Your task to perform on an android device: Open Android settings Image 0: 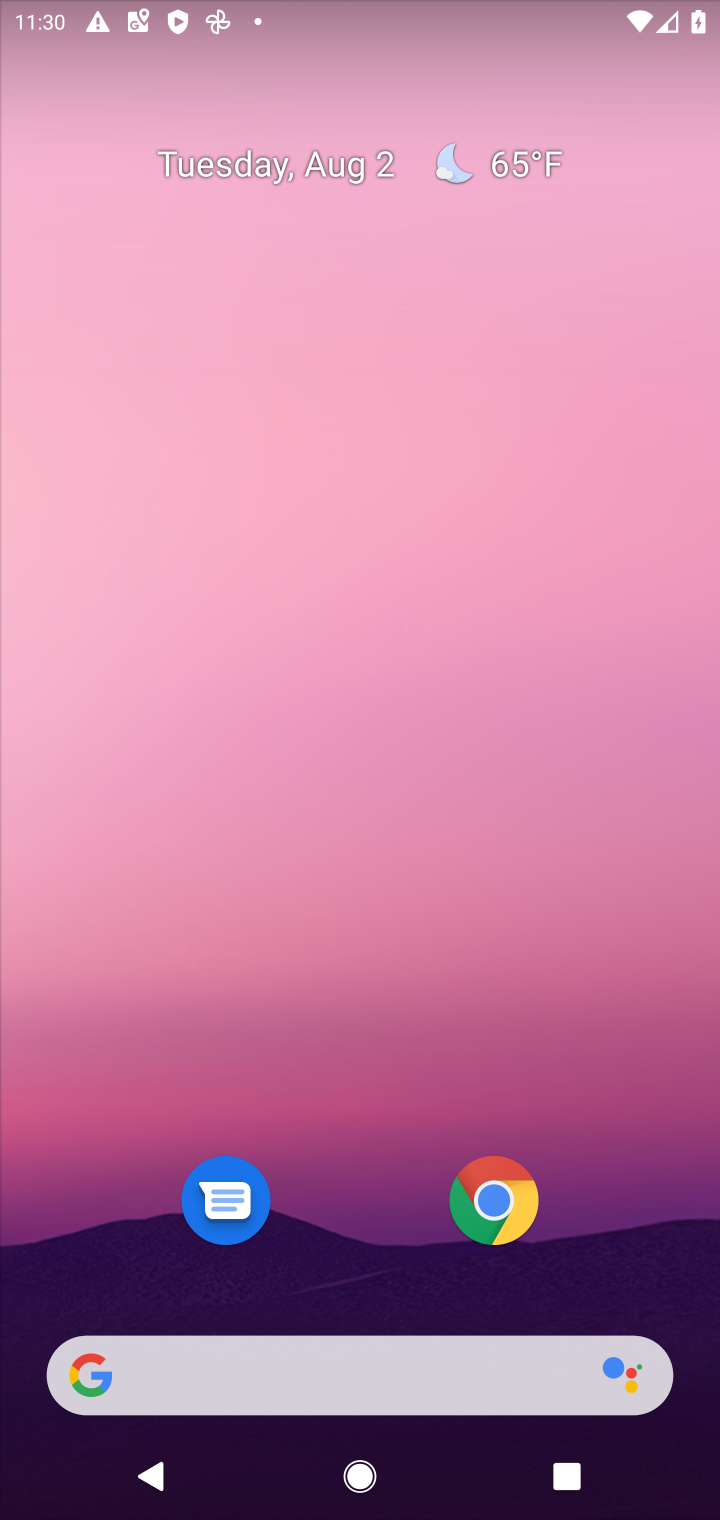
Step 0: drag from (636, 988) to (603, 430)
Your task to perform on an android device: Open Android settings Image 1: 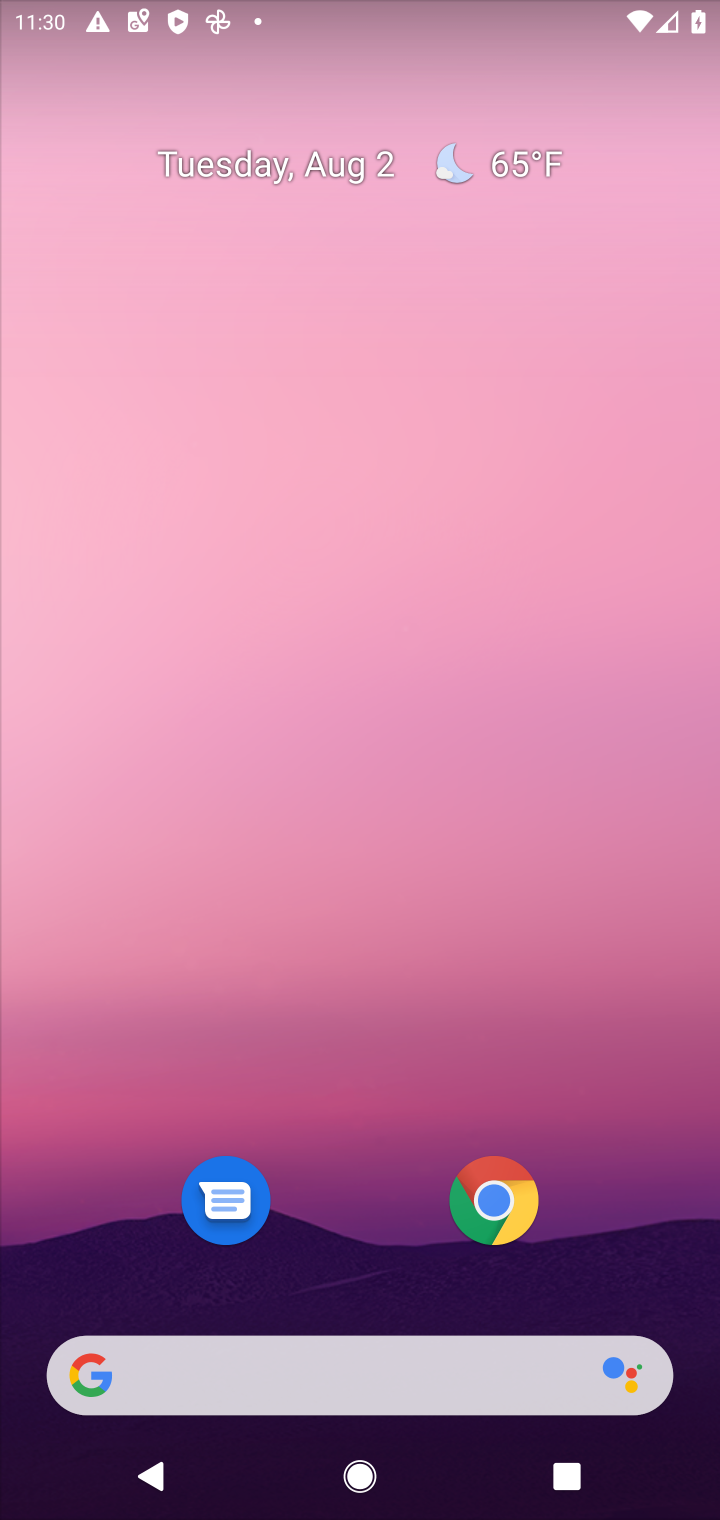
Step 1: drag from (676, 1307) to (521, 167)
Your task to perform on an android device: Open Android settings Image 2: 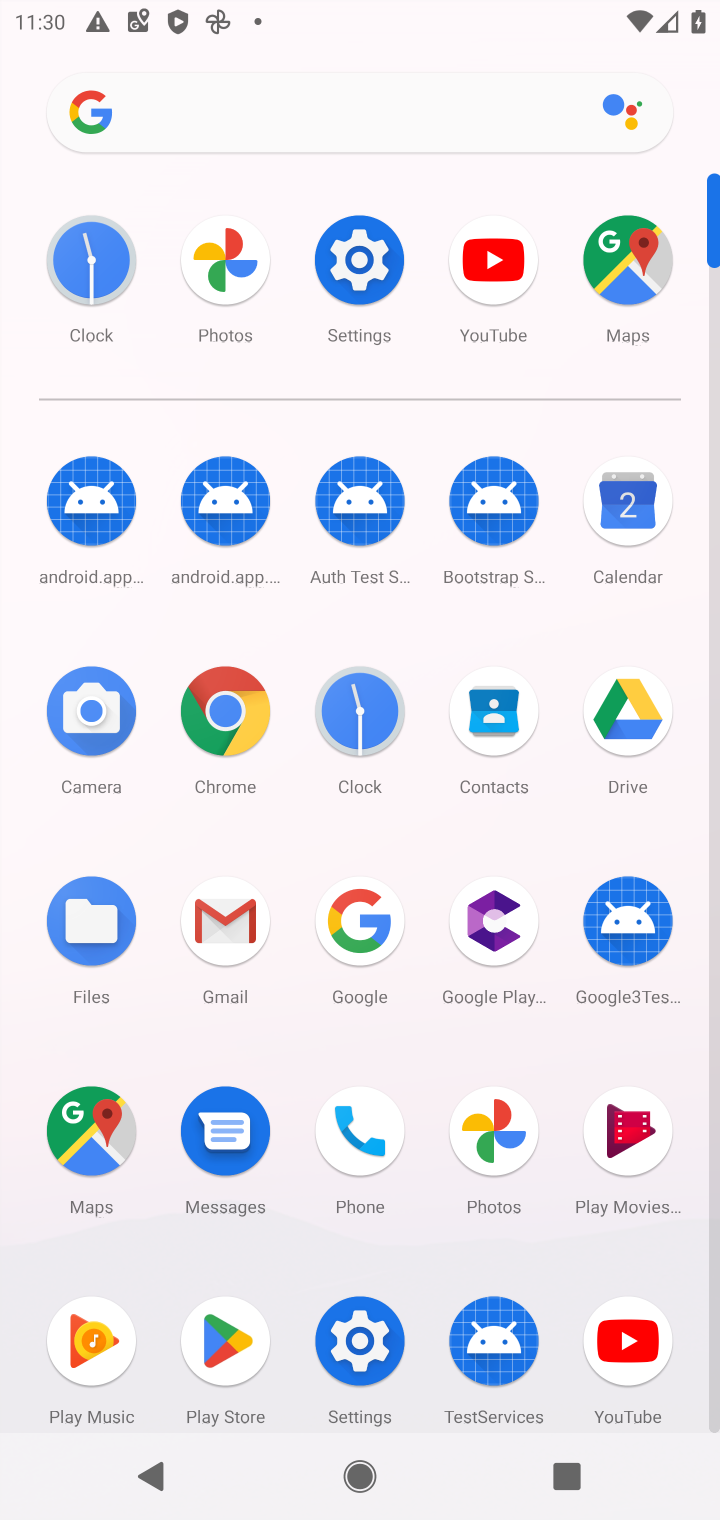
Step 2: click (357, 1344)
Your task to perform on an android device: Open Android settings Image 3: 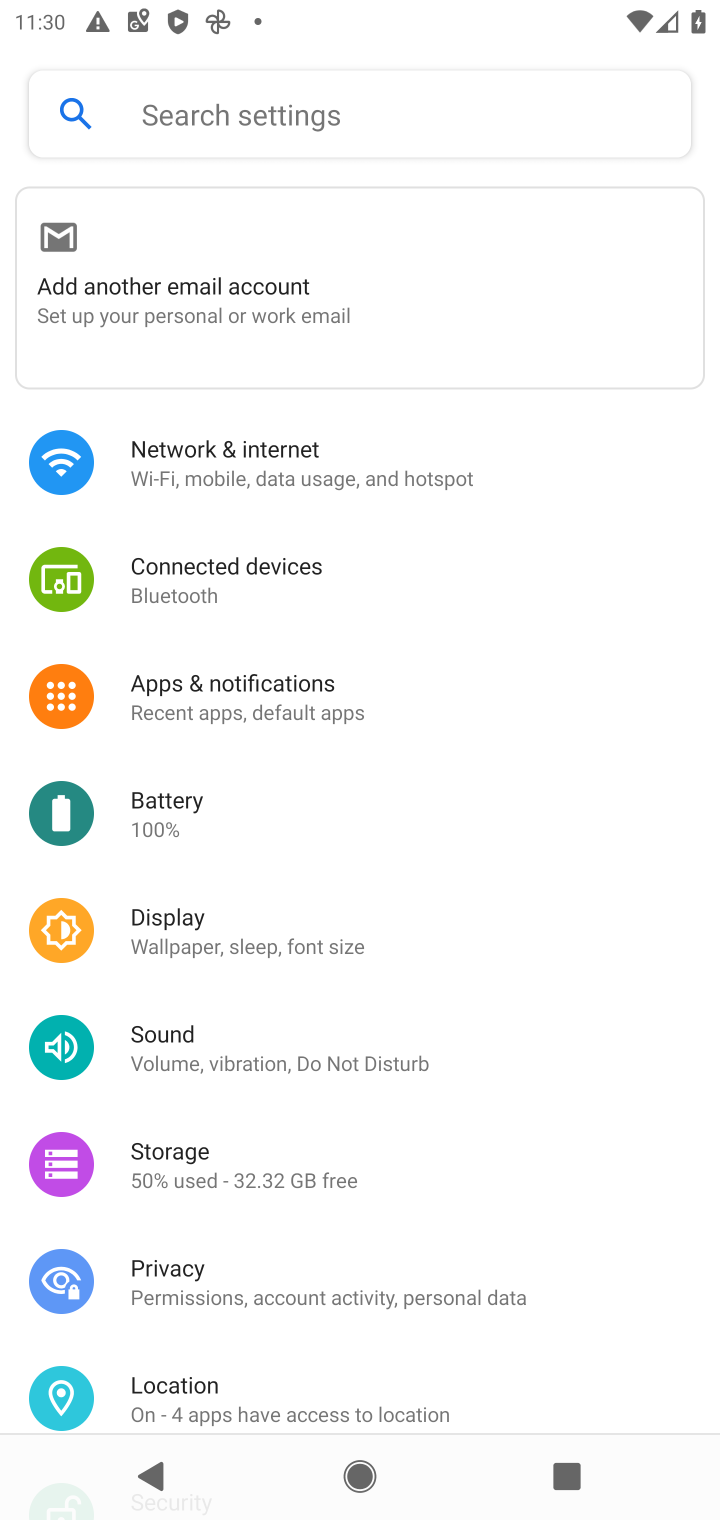
Step 3: drag from (581, 1332) to (474, 348)
Your task to perform on an android device: Open Android settings Image 4: 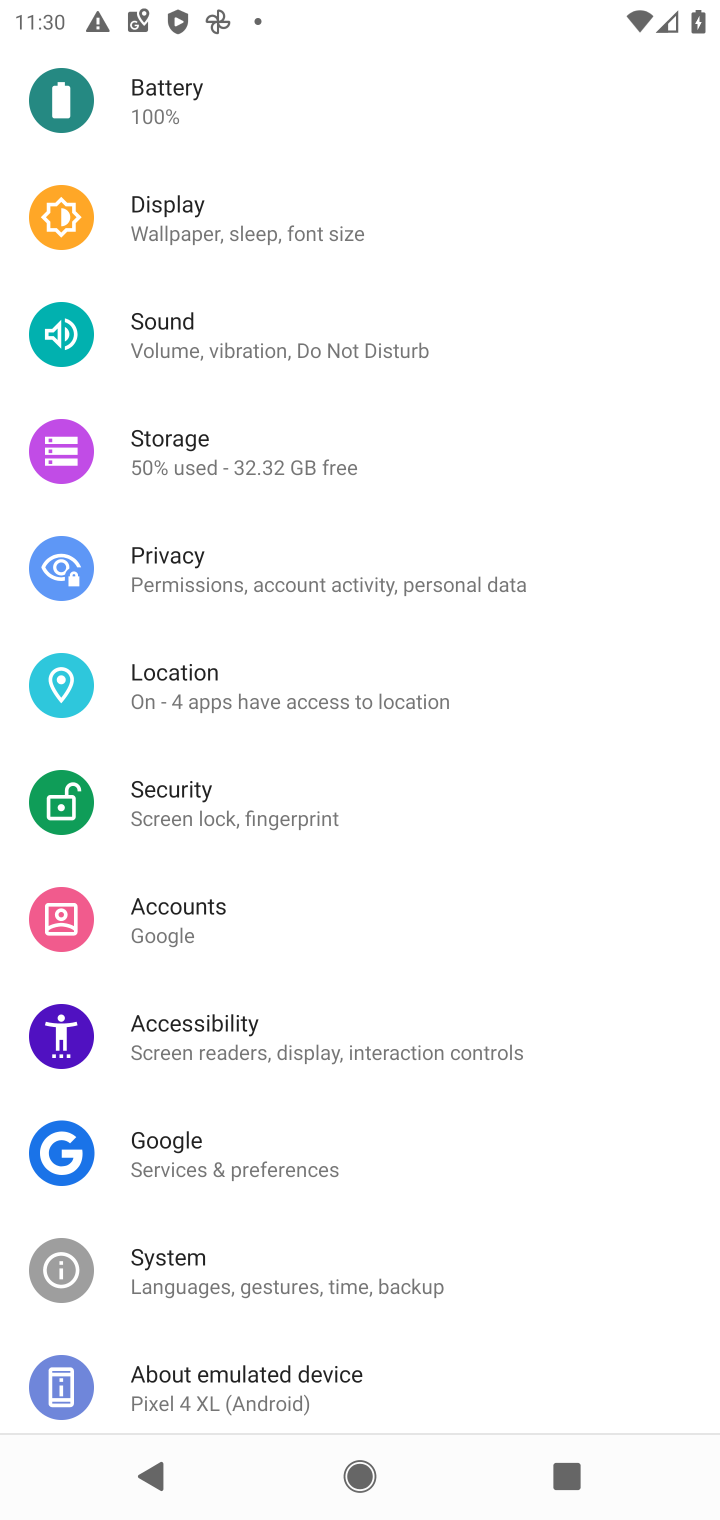
Step 4: click (205, 1375)
Your task to perform on an android device: Open Android settings Image 5: 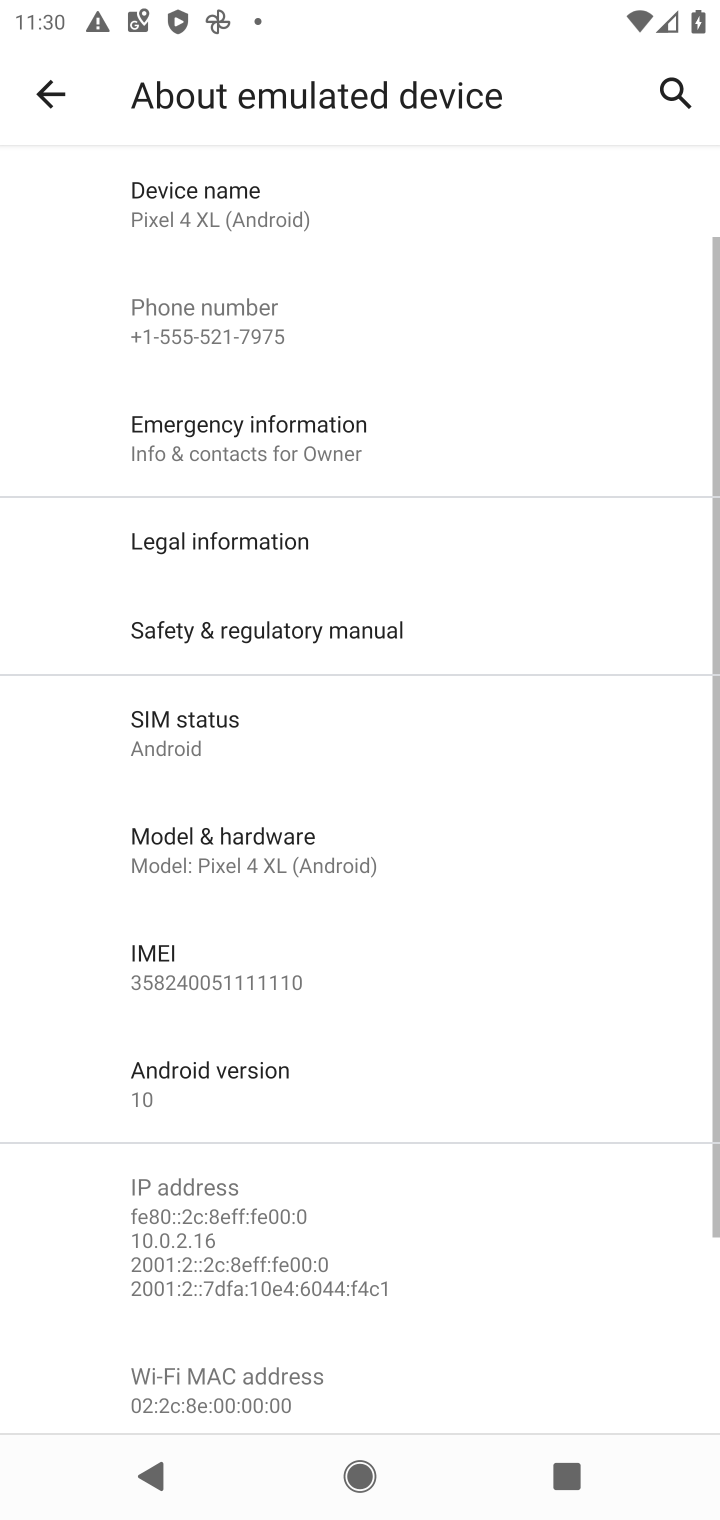
Step 5: task complete